Your task to perform on an android device: manage bookmarks in the chrome app Image 0: 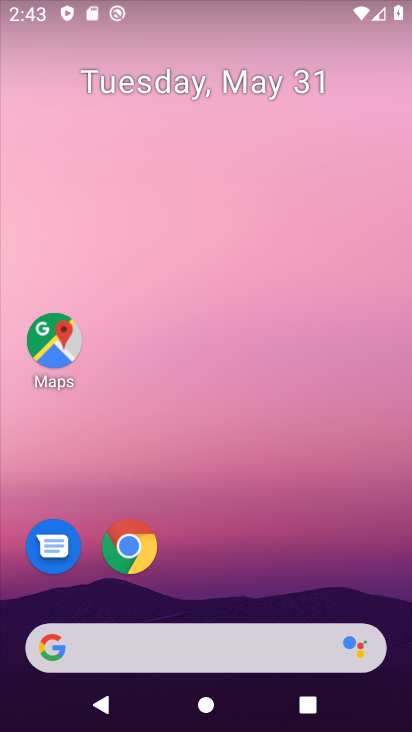
Step 0: click (126, 548)
Your task to perform on an android device: manage bookmarks in the chrome app Image 1: 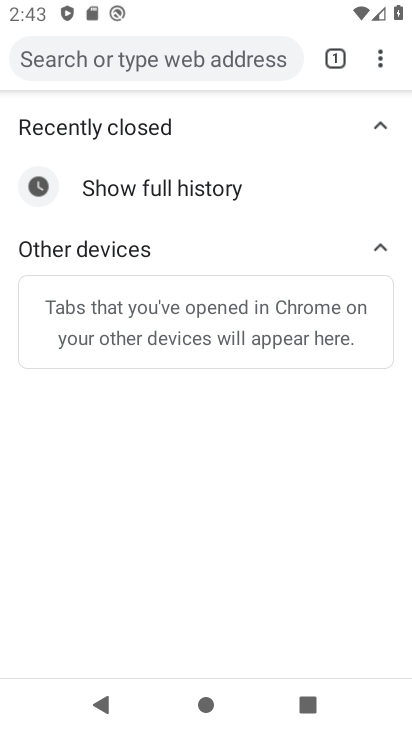
Step 1: click (375, 57)
Your task to perform on an android device: manage bookmarks in the chrome app Image 2: 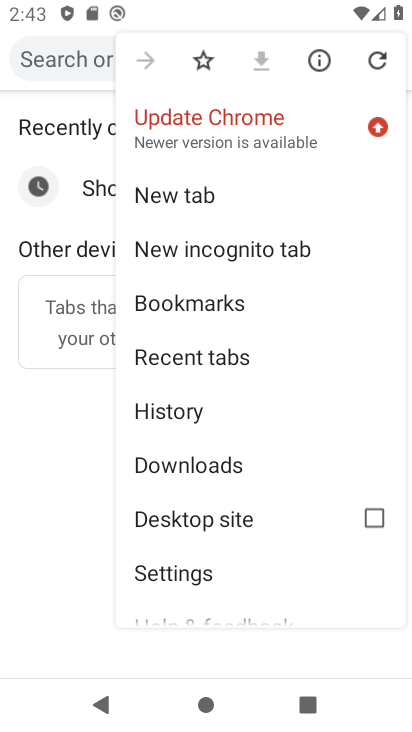
Step 2: click (250, 293)
Your task to perform on an android device: manage bookmarks in the chrome app Image 3: 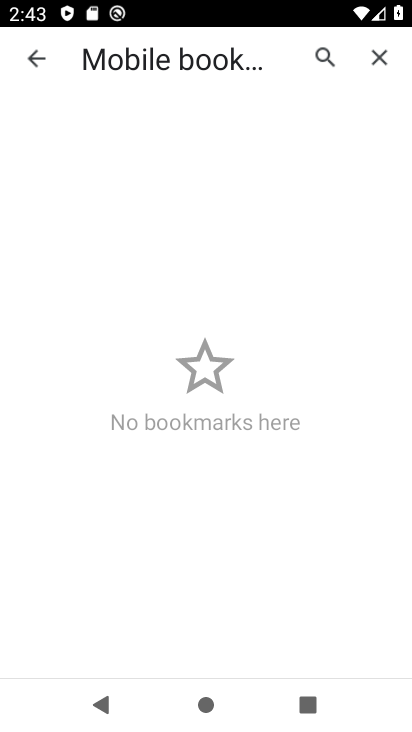
Step 3: task complete